Your task to perform on an android device: open device folders in google photos Image 0: 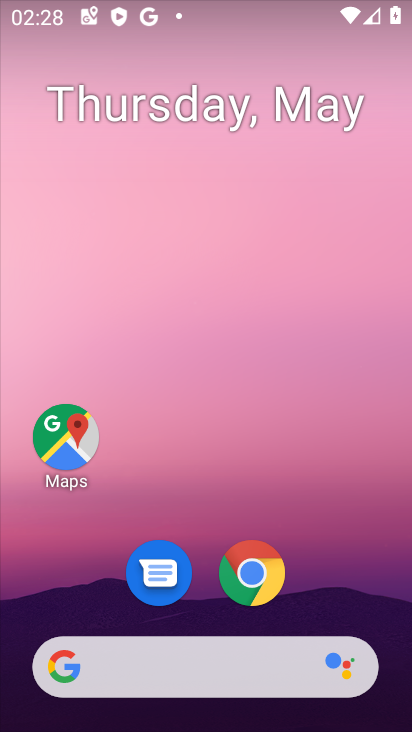
Step 0: drag from (356, 604) to (351, 171)
Your task to perform on an android device: open device folders in google photos Image 1: 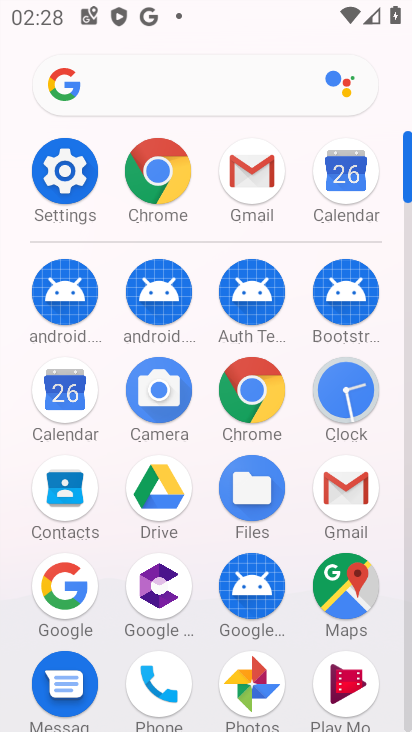
Step 1: click (234, 685)
Your task to perform on an android device: open device folders in google photos Image 2: 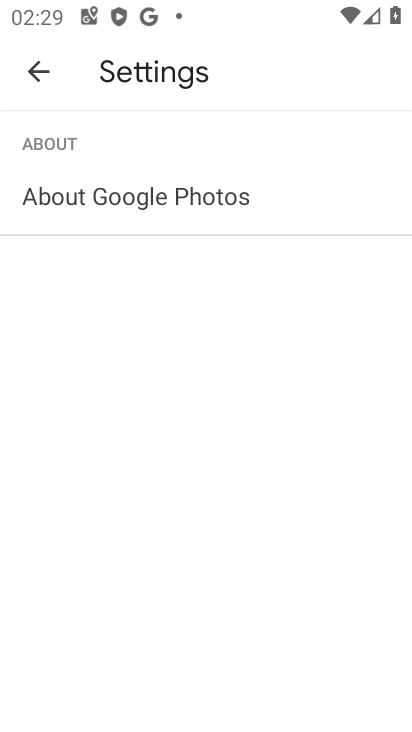
Step 2: click (45, 68)
Your task to perform on an android device: open device folders in google photos Image 3: 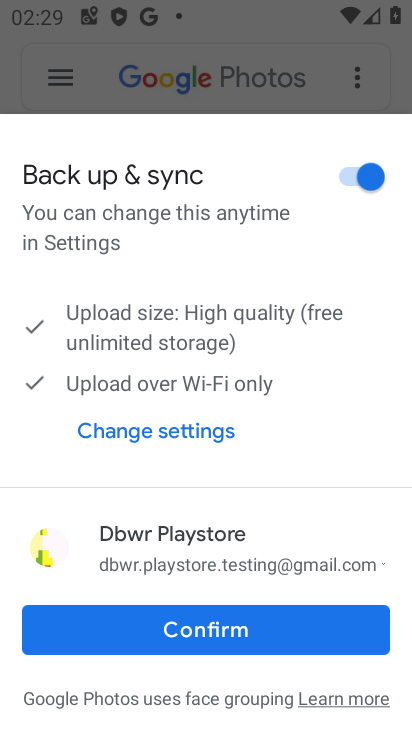
Step 3: click (175, 638)
Your task to perform on an android device: open device folders in google photos Image 4: 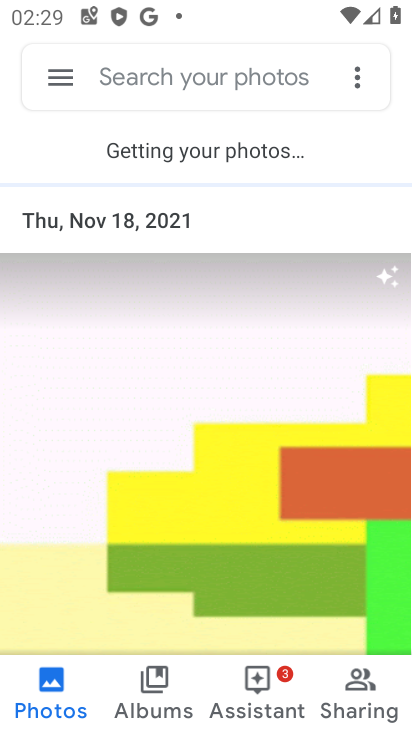
Step 4: task complete